Your task to perform on an android device: see tabs open on other devices in the chrome app Image 0: 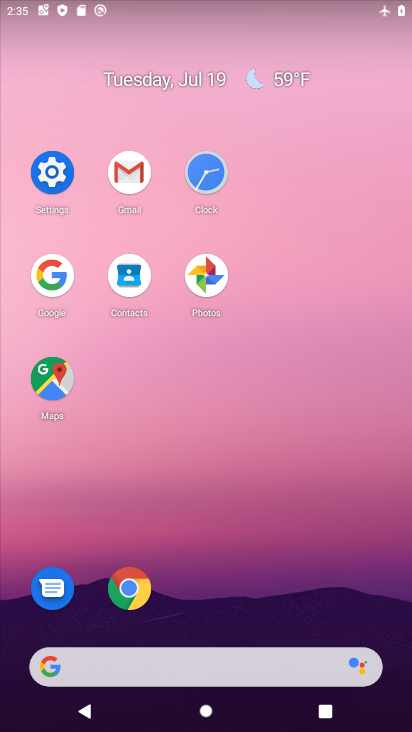
Step 0: click (123, 594)
Your task to perform on an android device: see tabs open on other devices in the chrome app Image 1: 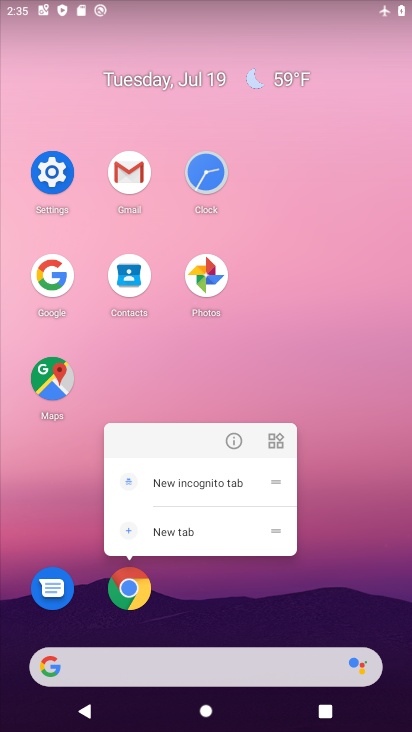
Step 1: click (123, 594)
Your task to perform on an android device: see tabs open on other devices in the chrome app Image 2: 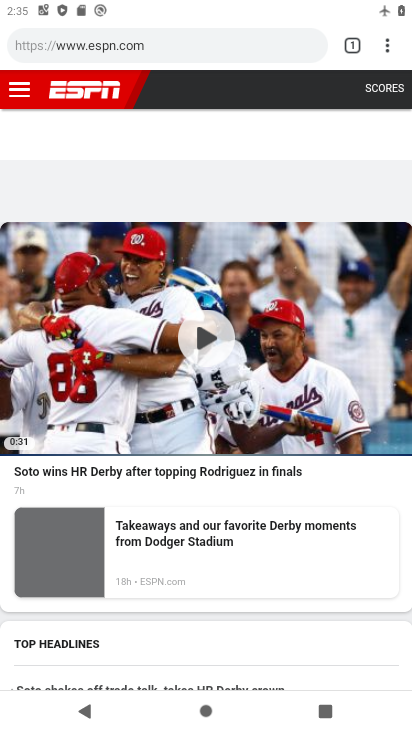
Step 2: click (388, 46)
Your task to perform on an android device: see tabs open on other devices in the chrome app Image 3: 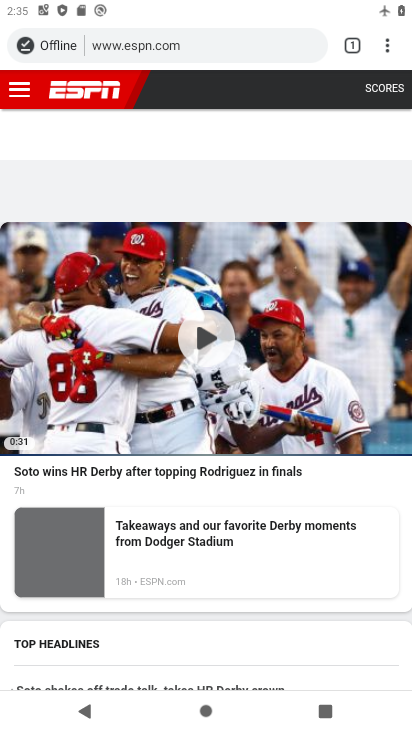
Step 3: click (381, 42)
Your task to perform on an android device: see tabs open on other devices in the chrome app Image 4: 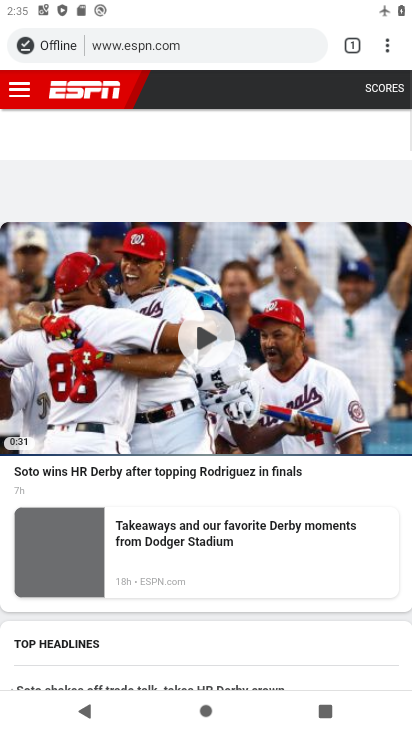
Step 4: click (378, 41)
Your task to perform on an android device: see tabs open on other devices in the chrome app Image 5: 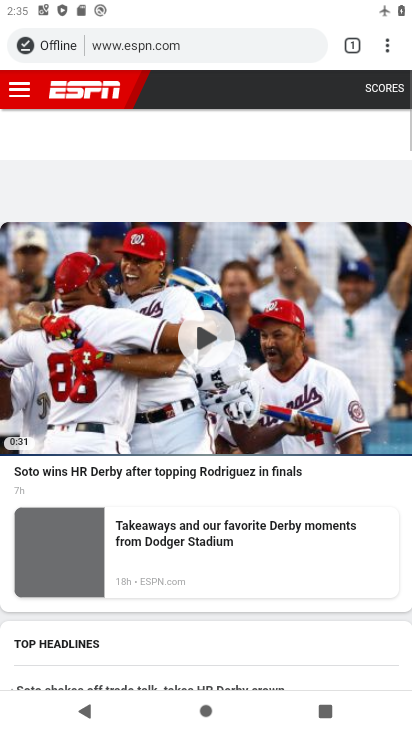
Step 5: click (390, 39)
Your task to perform on an android device: see tabs open on other devices in the chrome app Image 6: 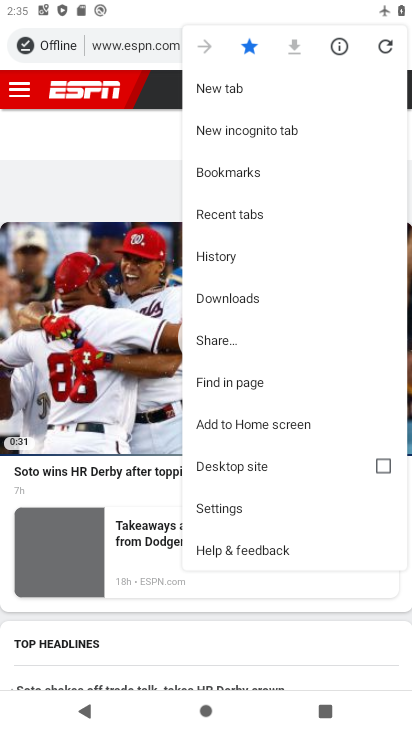
Step 6: click (252, 207)
Your task to perform on an android device: see tabs open on other devices in the chrome app Image 7: 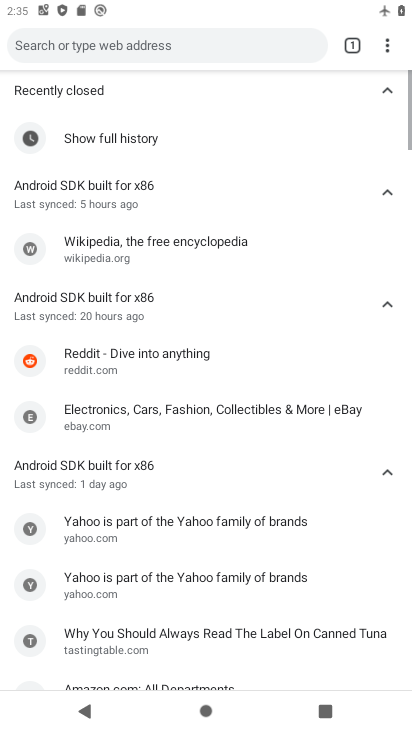
Step 7: task complete